Your task to perform on an android device: Search for usb-b on newegg.com, select the first entry, add it to the cart, then select checkout. Image 0: 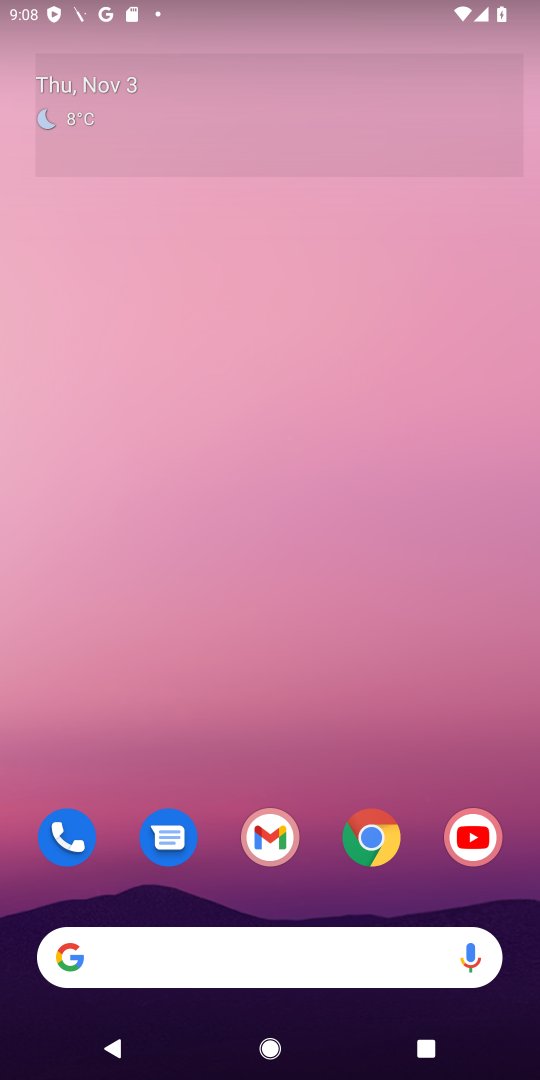
Step 0: click (374, 834)
Your task to perform on an android device: Search for usb-b on newegg.com, select the first entry, add it to the cart, then select checkout. Image 1: 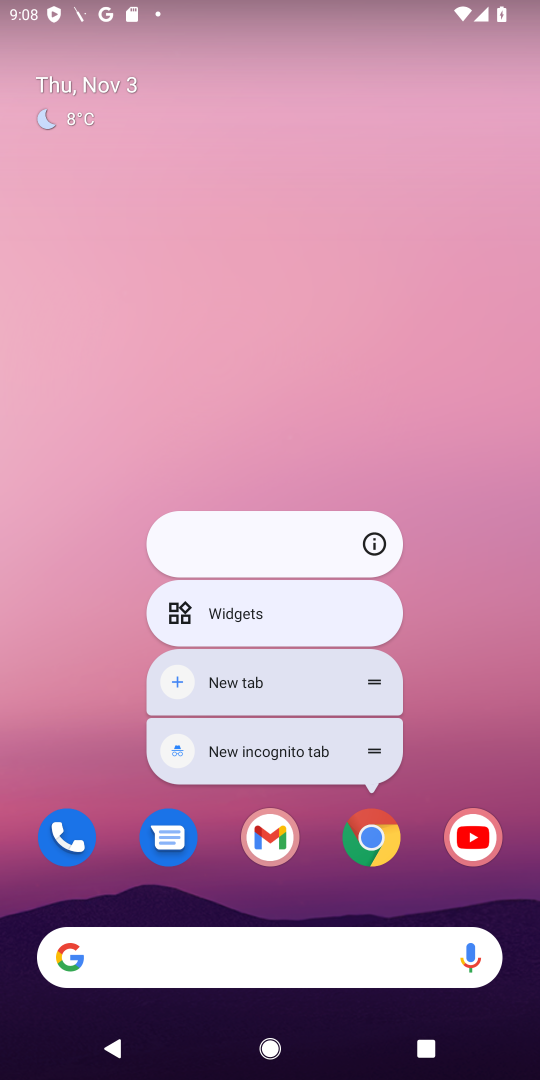
Step 1: click (374, 836)
Your task to perform on an android device: Search for usb-b on newegg.com, select the first entry, add it to the cart, then select checkout. Image 2: 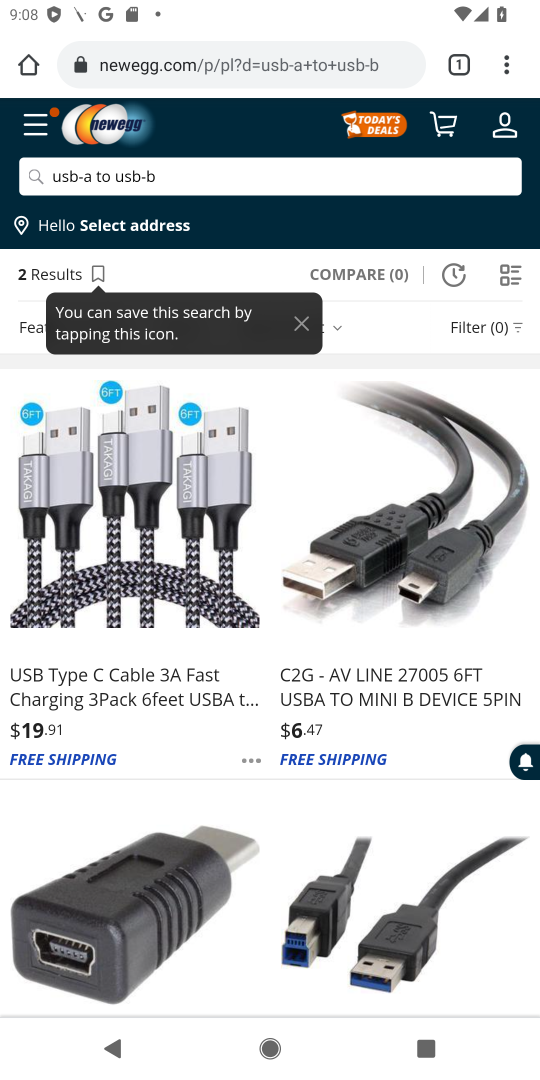
Step 2: click (177, 63)
Your task to perform on an android device: Search for usb-b on newegg.com, select the first entry, add it to the cart, then select checkout. Image 3: 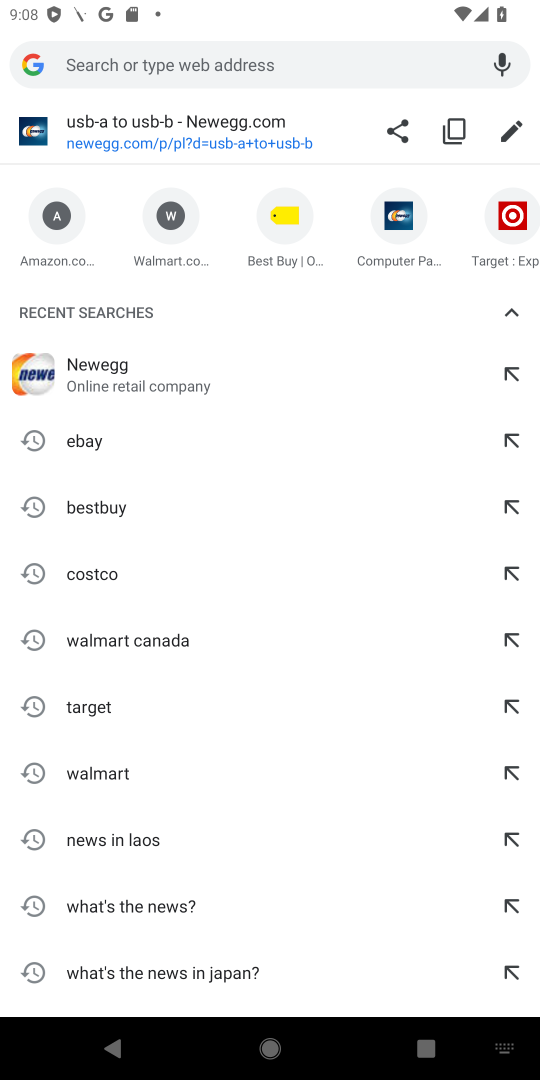
Step 3: click (91, 367)
Your task to perform on an android device: Search for usb-b on newegg.com, select the first entry, add it to the cart, then select checkout. Image 4: 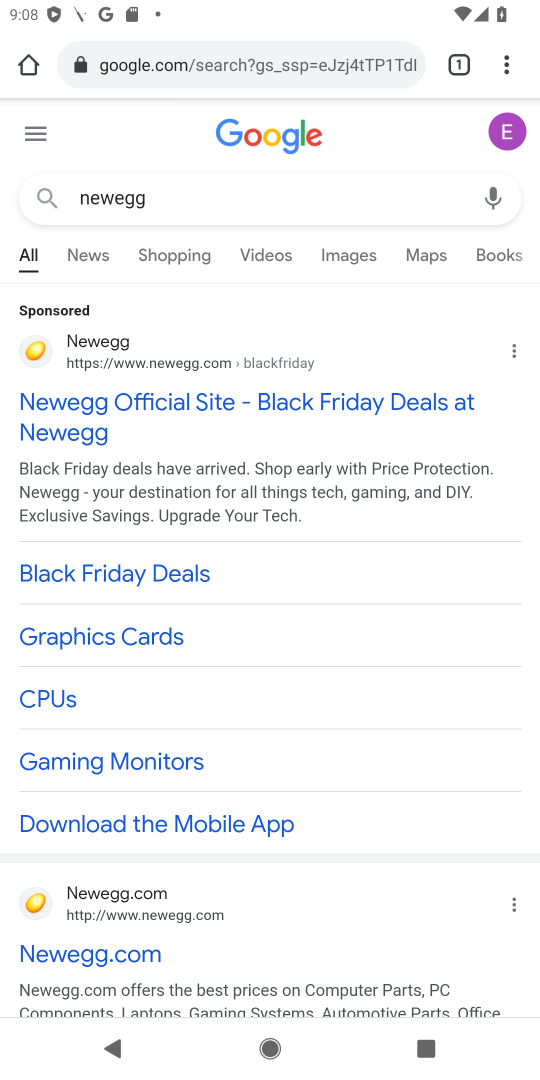
Step 4: click (133, 400)
Your task to perform on an android device: Search for usb-b on newegg.com, select the first entry, add it to the cart, then select checkout. Image 5: 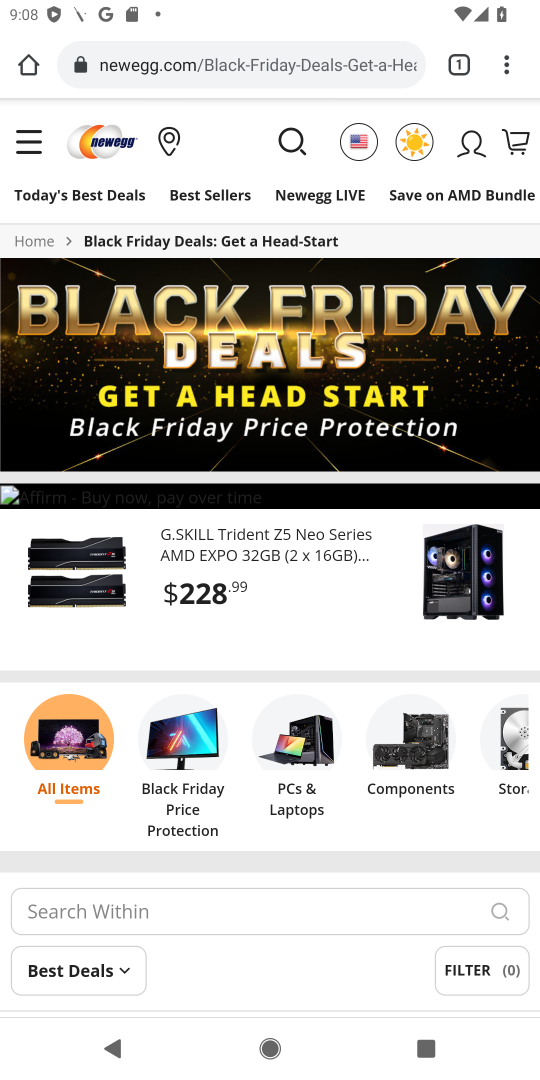
Step 5: click (283, 131)
Your task to perform on an android device: Search for usb-b on newegg.com, select the first entry, add it to the cart, then select checkout. Image 6: 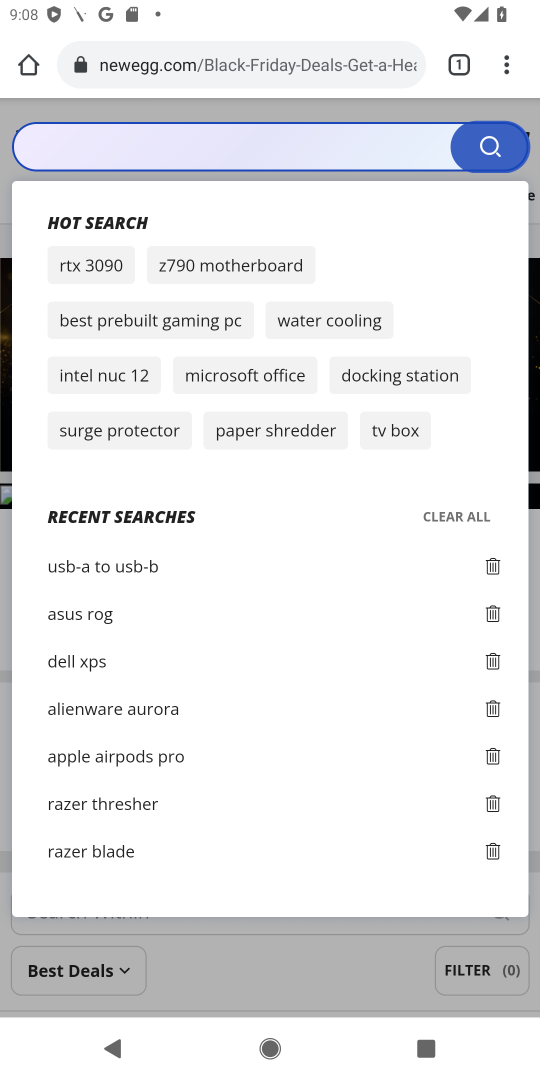
Step 6: click (69, 142)
Your task to perform on an android device: Search for usb-b on newegg.com, select the first entry, add it to the cart, then select checkout. Image 7: 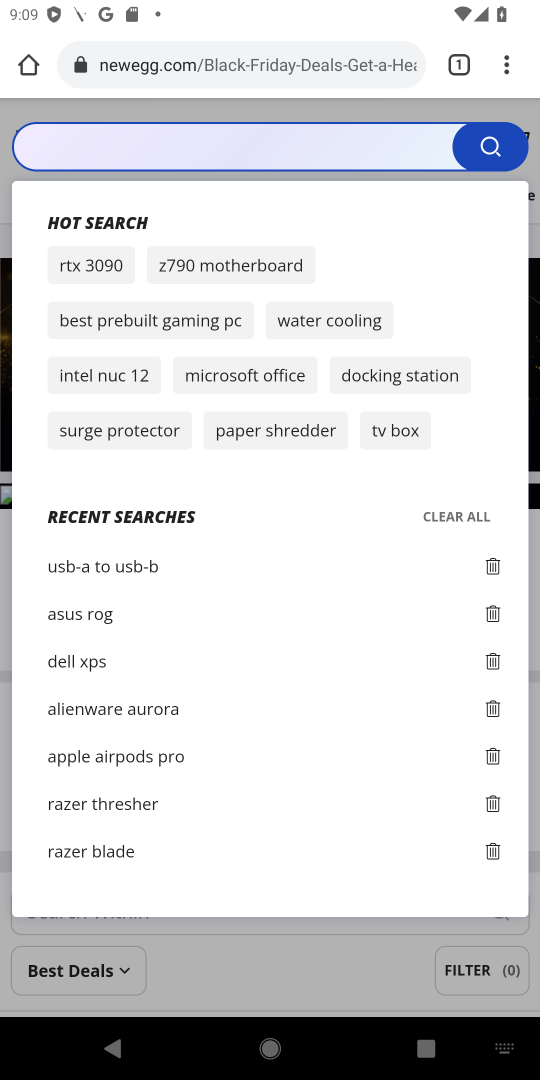
Step 7: type "usb-b"
Your task to perform on an android device: Search for usb-b on newegg.com, select the first entry, add it to the cart, then select checkout. Image 8: 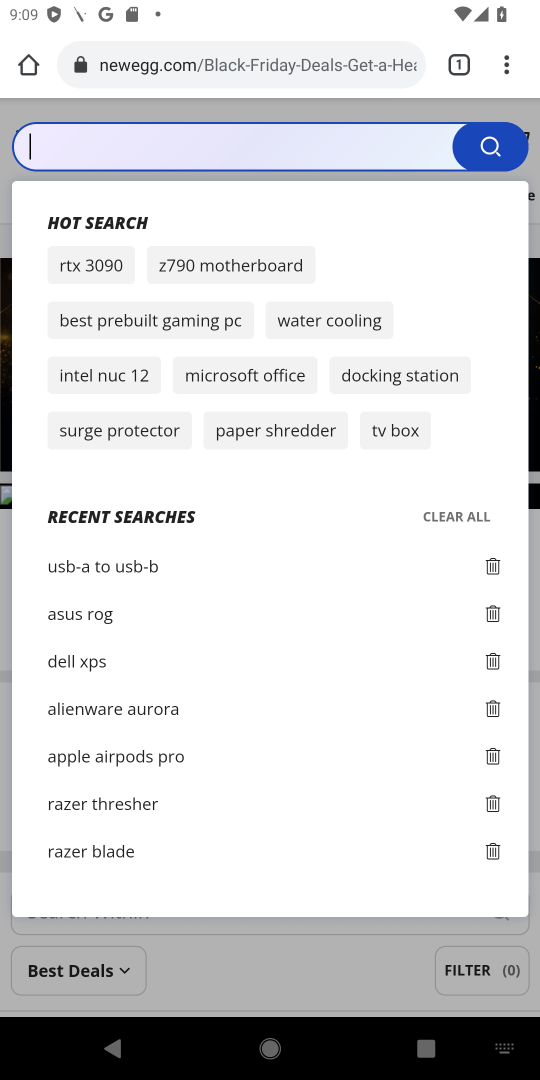
Step 8: press enter
Your task to perform on an android device: Search for usb-b on newegg.com, select the first entry, add it to the cart, then select checkout. Image 9: 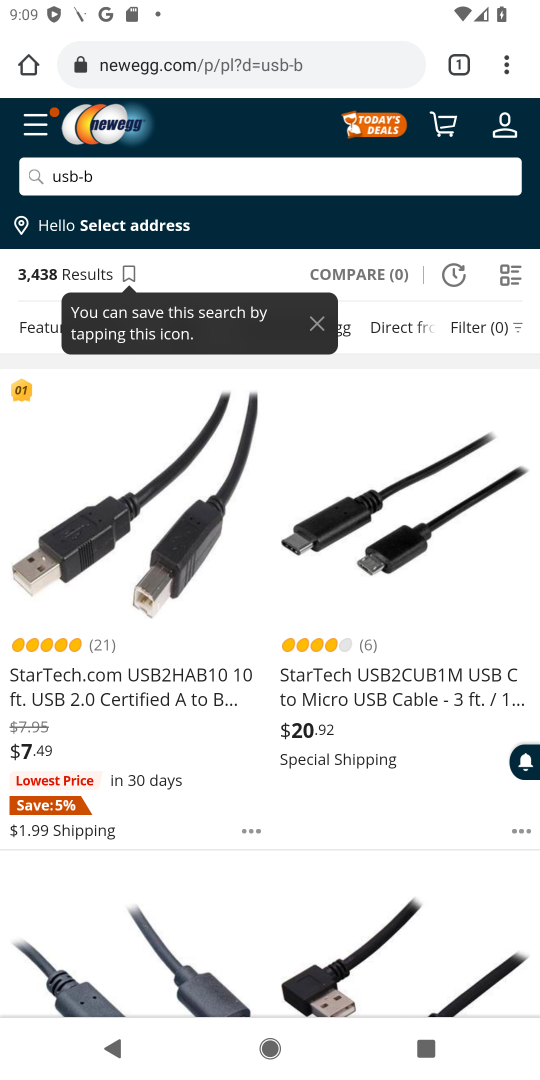
Step 9: click (152, 661)
Your task to perform on an android device: Search for usb-b on newegg.com, select the first entry, add it to the cart, then select checkout. Image 10: 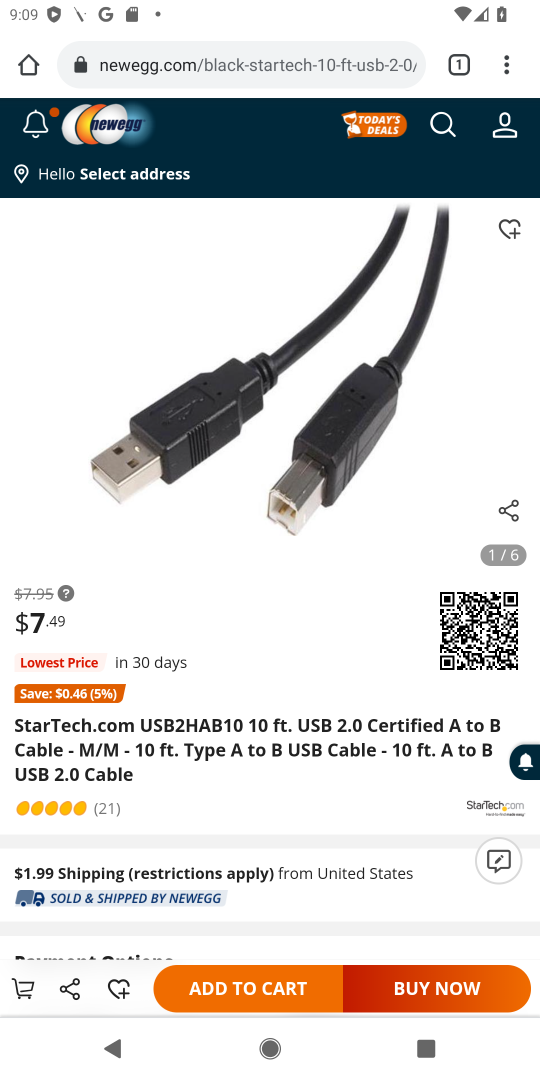
Step 10: task complete